Your task to perform on an android device: Is it going to rain tomorrow? Image 0: 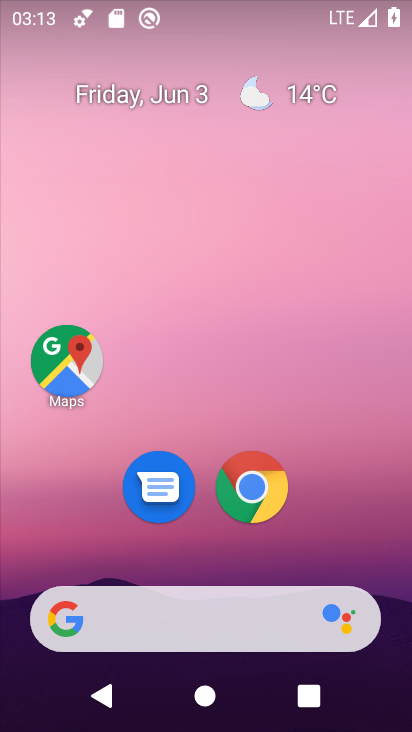
Step 0: click (308, 91)
Your task to perform on an android device: Is it going to rain tomorrow? Image 1: 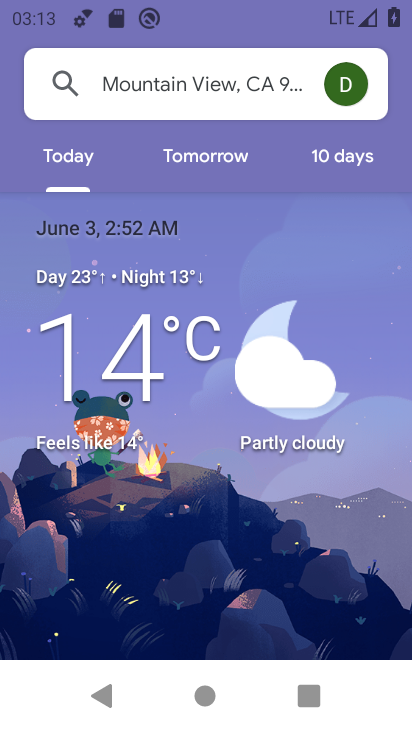
Step 1: click (181, 157)
Your task to perform on an android device: Is it going to rain tomorrow? Image 2: 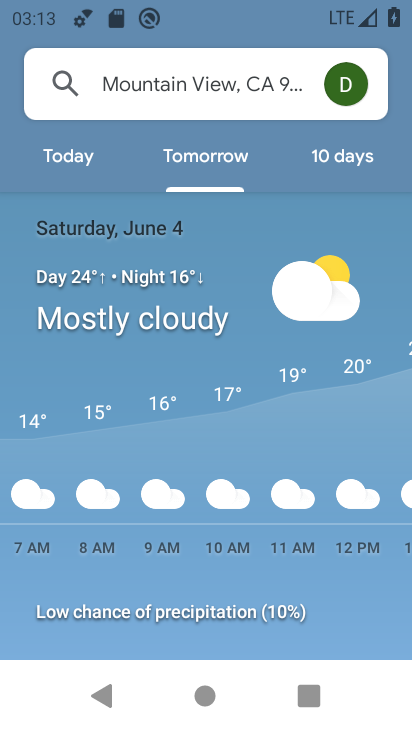
Step 2: task complete